Your task to perform on an android device: turn off improve location accuracy Image 0: 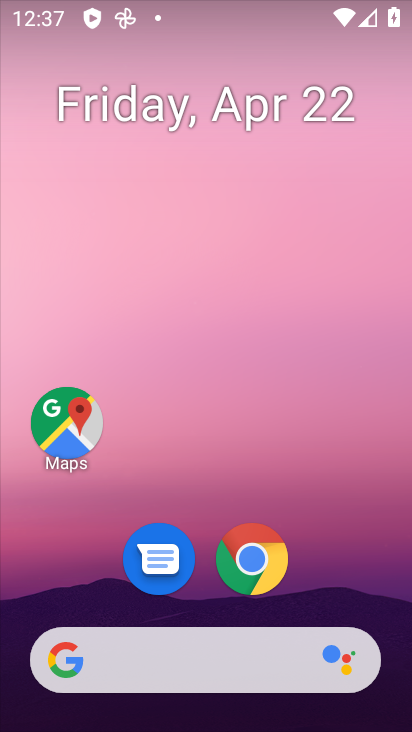
Step 0: drag from (360, 581) to (354, 227)
Your task to perform on an android device: turn off improve location accuracy Image 1: 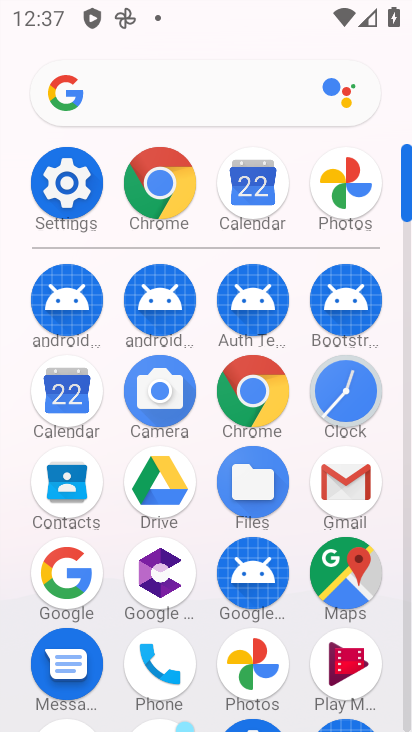
Step 1: click (66, 180)
Your task to perform on an android device: turn off improve location accuracy Image 2: 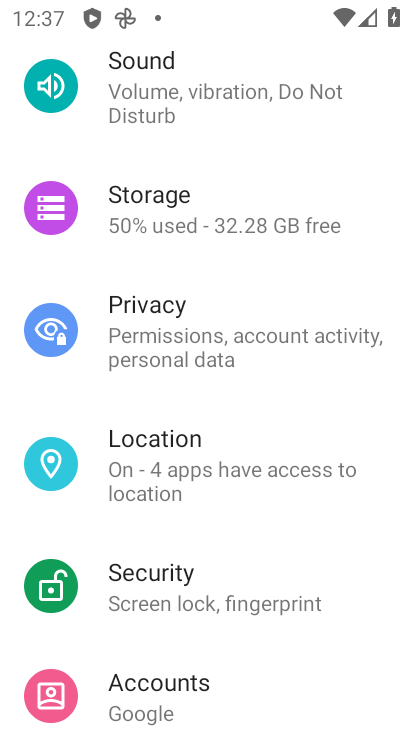
Step 2: drag from (381, 418) to (387, 533)
Your task to perform on an android device: turn off improve location accuracy Image 3: 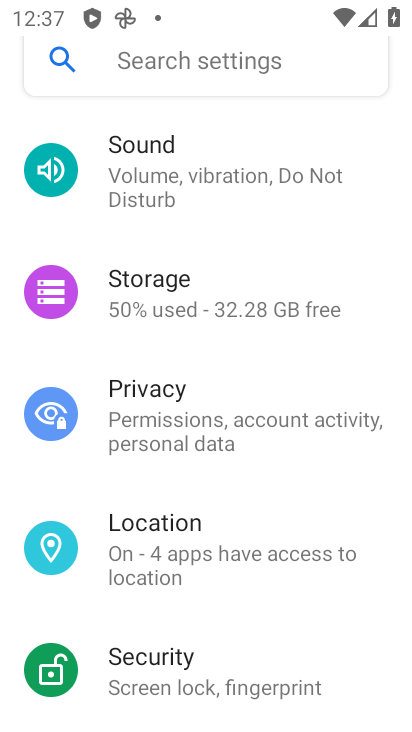
Step 3: drag from (368, 310) to (374, 468)
Your task to perform on an android device: turn off improve location accuracy Image 4: 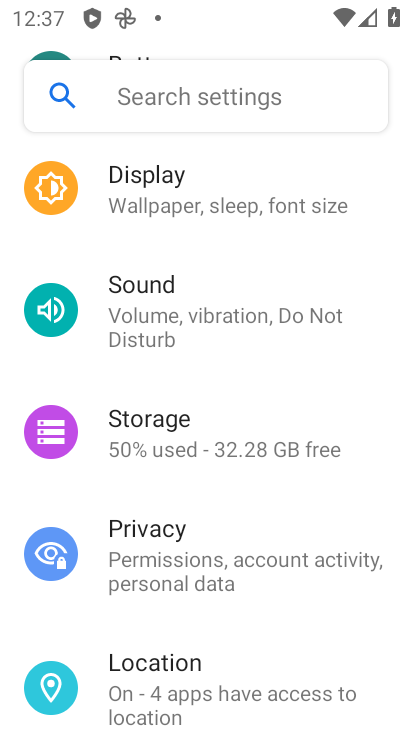
Step 4: drag from (372, 315) to (375, 440)
Your task to perform on an android device: turn off improve location accuracy Image 5: 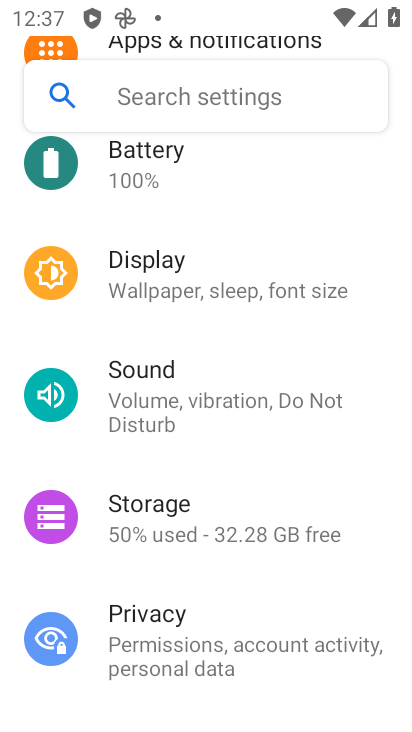
Step 5: drag from (381, 269) to (376, 417)
Your task to perform on an android device: turn off improve location accuracy Image 6: 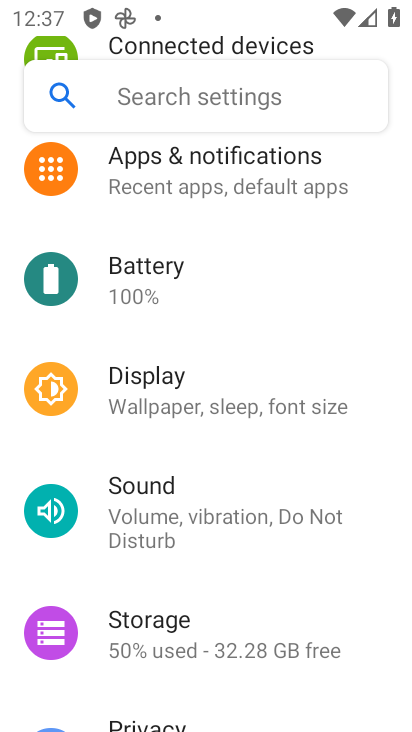
Step 6: drag from (372, 247) to (372, 406)
Your task to perform on an android device: turn off improve location accuracy Image 7: 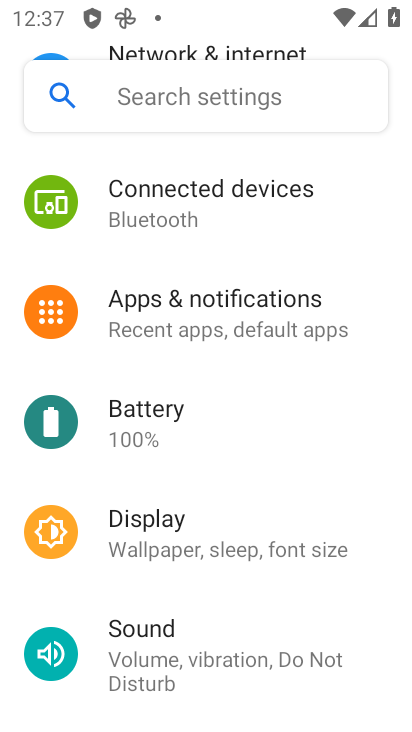
Step 7: drag from (365, 245) to (366, 385)
Your task to perform on an android device: turn off improve location accuracy Image 8: 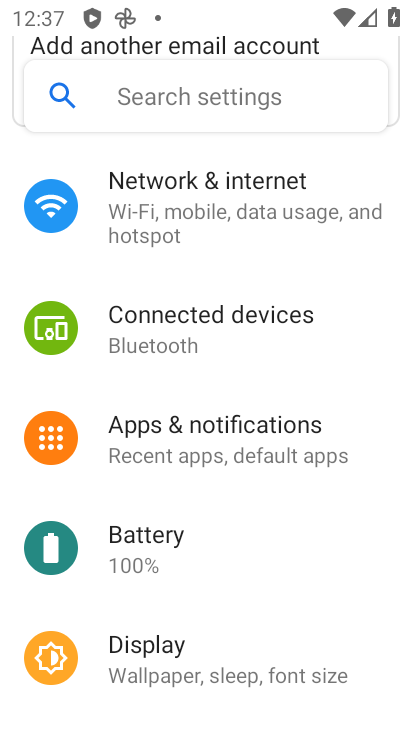
Step 8: drag from (370, 566) to (377, 395)
Your task to perform on an android device: turn off improve location accuracy Image 9: 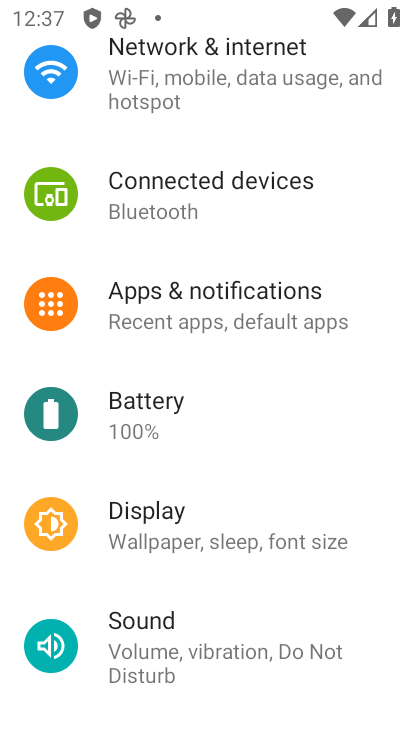
Step 9: drag from (362, 565) to (366, 397)
Your task to perform on an android device: turn off improve location accuracy Image 10: 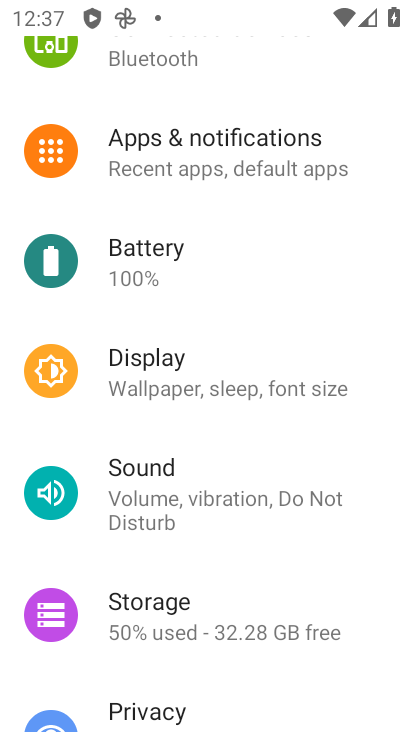
Step 10: drag from (356, 559) to (372, 390)
Your task to perform on an android device: turn off improve location accuracy Image 11: 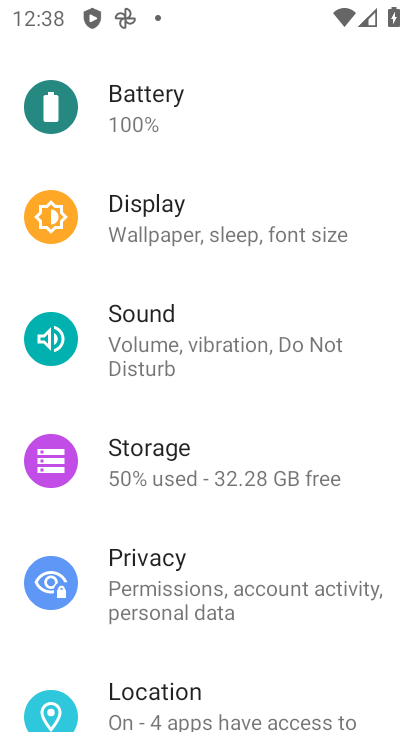
Step 11: drag from (351, 533) to (379, 370)
Your task to perform on an android device: turn off improve location accuracy Image 12: 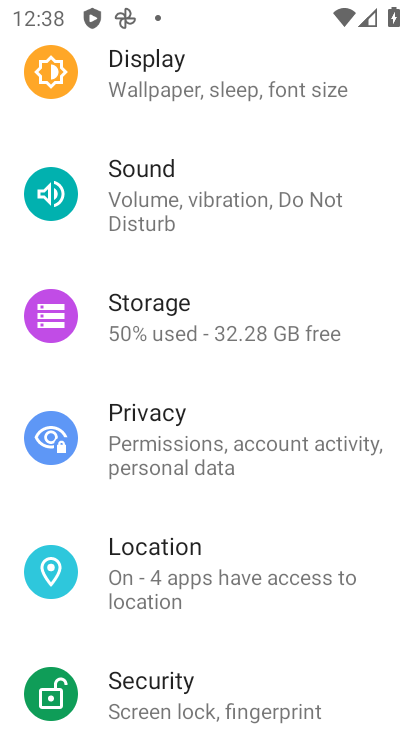
Step 12: drag from (367, 608) to (368, 412)
Your task to perform on an android device: turn off improve location accuracy Image 13: 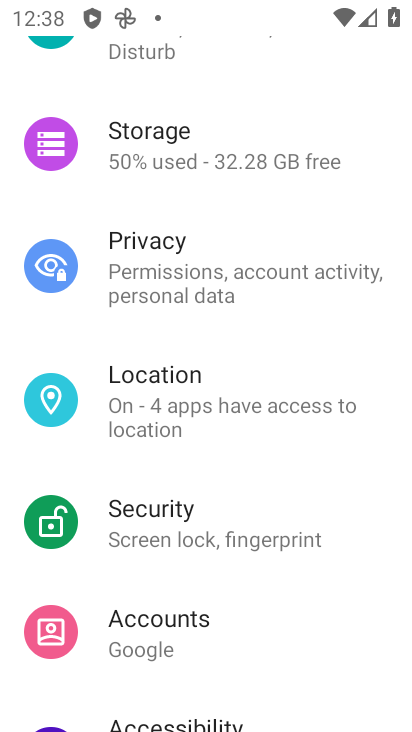
Step 13: drag from (361, 632) to (359, 459)
Your task to perform on an android device: turn off improve location accuracy Image 14: 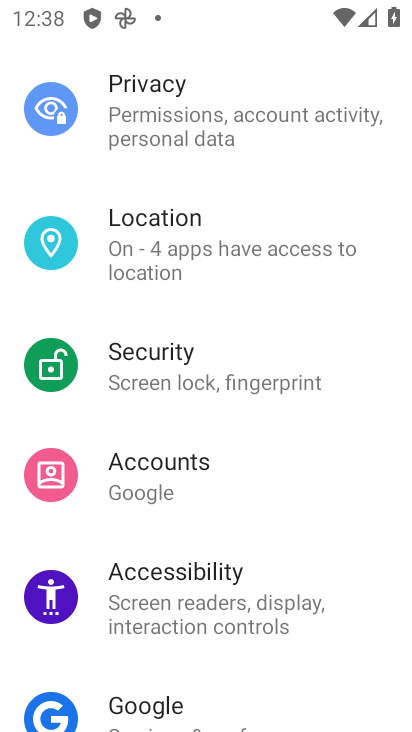
Step 14: drag from (345, 650) to (345, 520)
Your task to perform on an android device: turn off improve location accuracy Image 15: 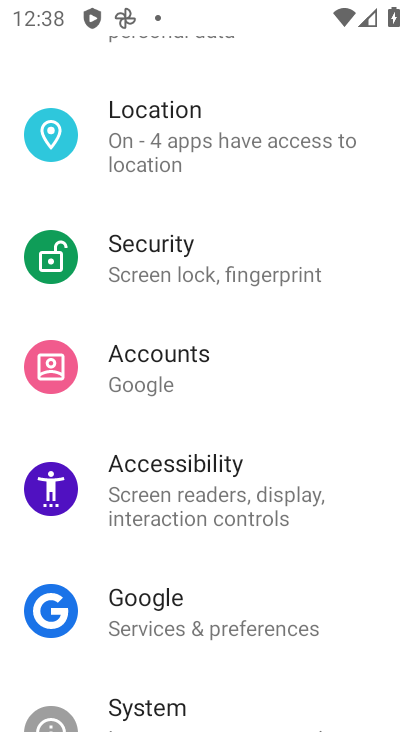
Step 15: drag from (340, 661) to (357, 382)
Your task to perform on an android device: turn off improve location accuracy Image 16: 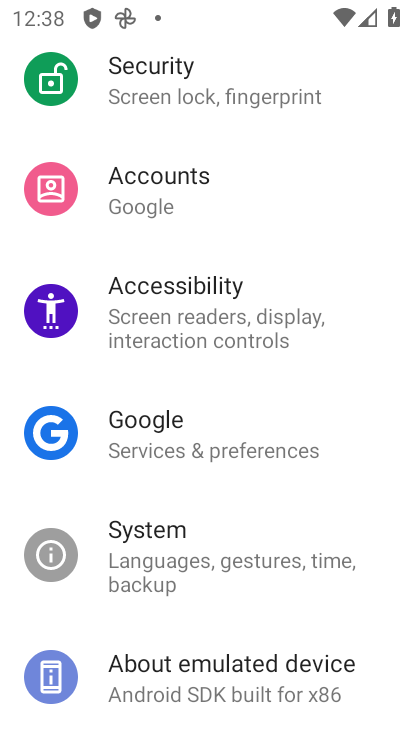
Step 16: drag from (347, 618) to (359, 421)
Your task to perform on an android device: turn off improve location accuracy Image 17: 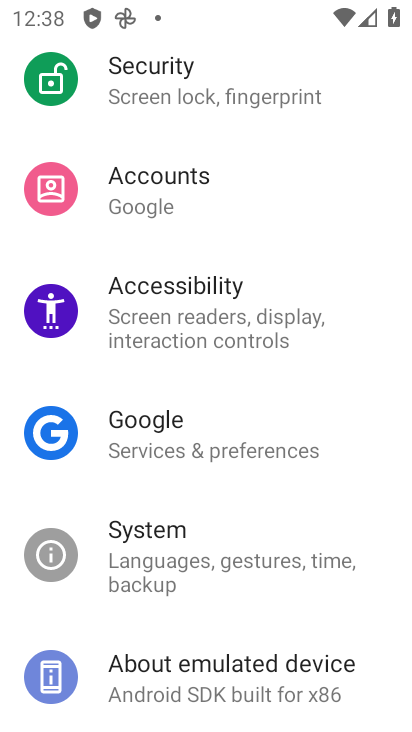
Step 17: drag from (357, 290) to (348, 494)
Your task to perform on an android device: turn off improve location accuracy Image 18: 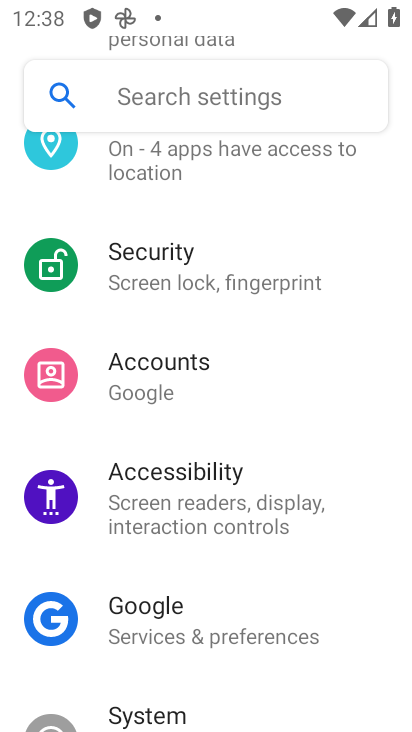
Step 18: drag from (358, 319) to (359, 463)
Your task to perform on an android device: turn off improve location accuracy Image 19: 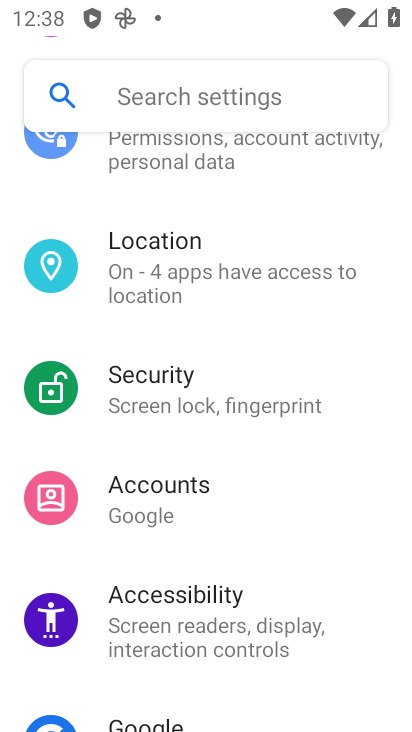
Step 19: click (299, 290)
Your task to perform on an android device: turn off improve location accuracy Image 20: 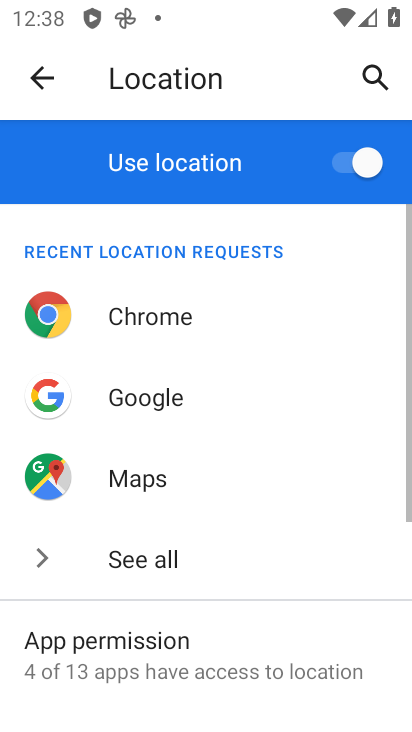
Step 20: drag from (311, 601) to (312, 347)
Your task to perform on an android device: turn off improve location accuracy Image 21: 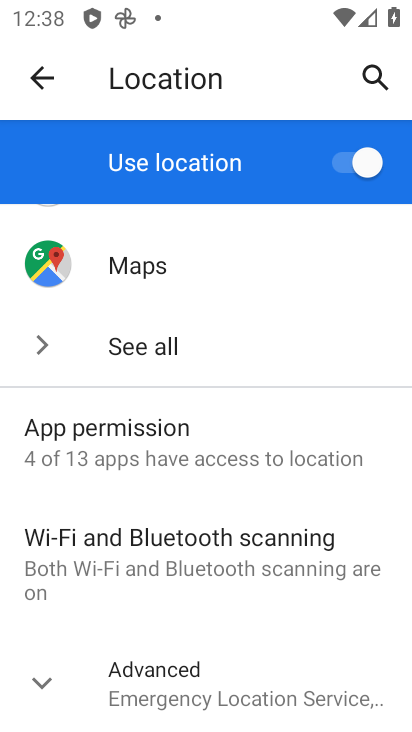
Step 21: drag from (299, 619) to (302, 368)
Your task to perform on an android device: turn off improve location accuracy Image 22: 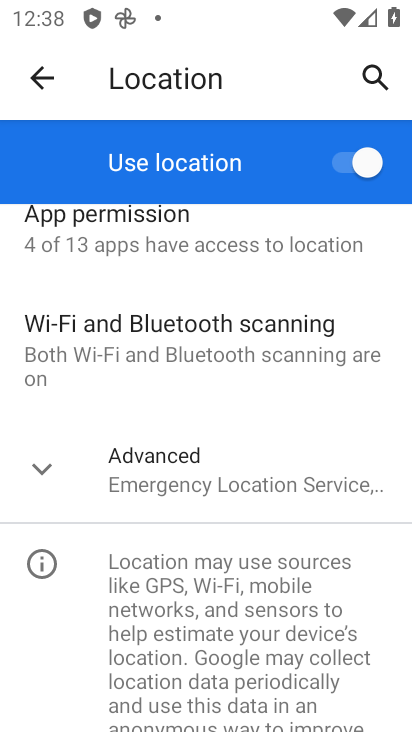
Step 22: click (280, 481)
Your task to perform on an android device: turn off improve location accuracy Image 23: 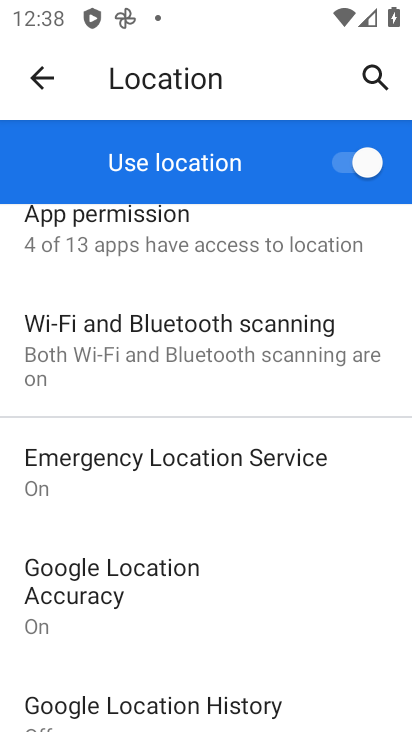
Step 23: drag from (290, 619) to (290, 467)
Your task to perform on an android device: turn off improve location accuracy Image 24: 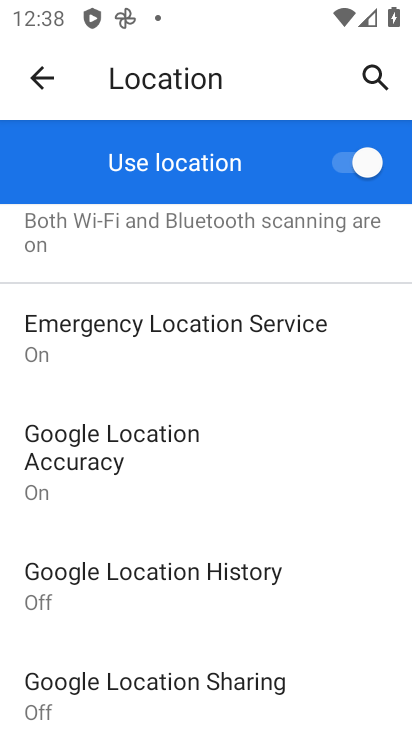
Step 24: drag from (342, 626) to (347, 511)
Your task to perform on an android device: turn off improve location accuracy Image 25: 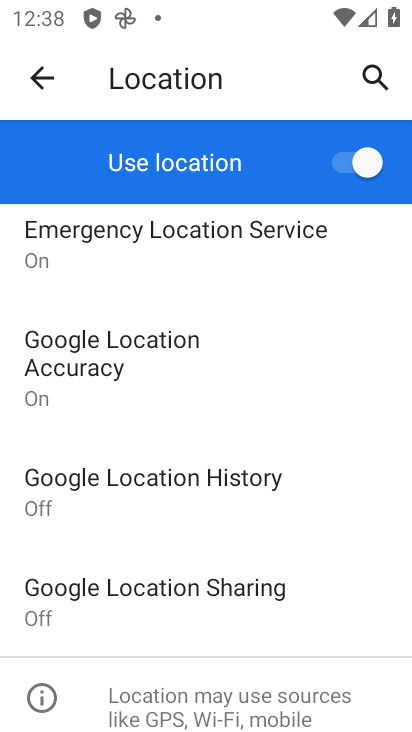
Step 25: click (139, 349)
Your task to perform on an android device: turn off improve location accuracy Image 26: 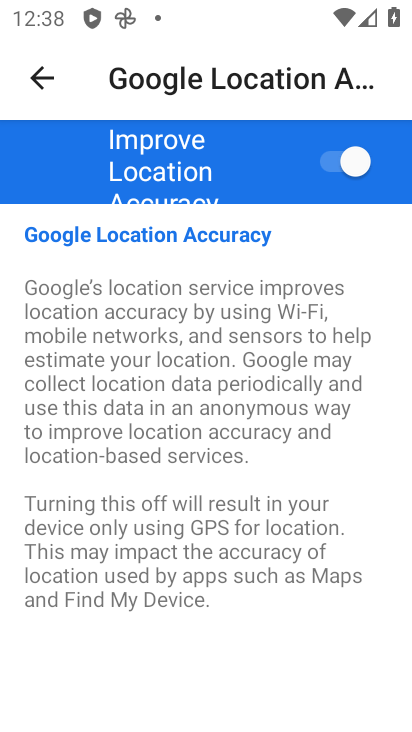
Step 26: click (348, 170)
Your task to perform on an android device: turn off improve location accuracy Image 27: 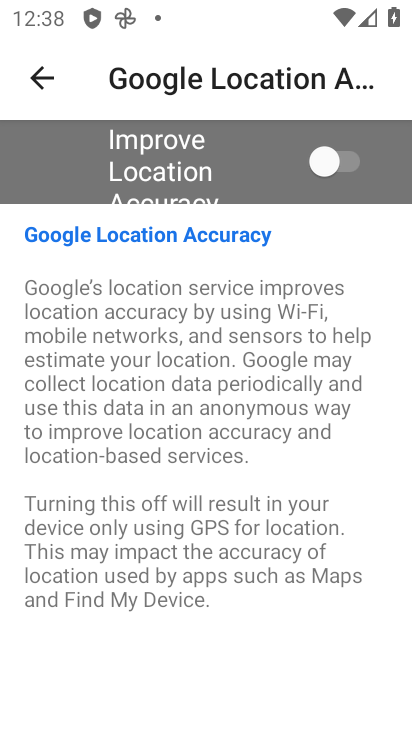
Step 27: task complete